Your task to perform on an android device: Go to Yahoo.com Image 0: 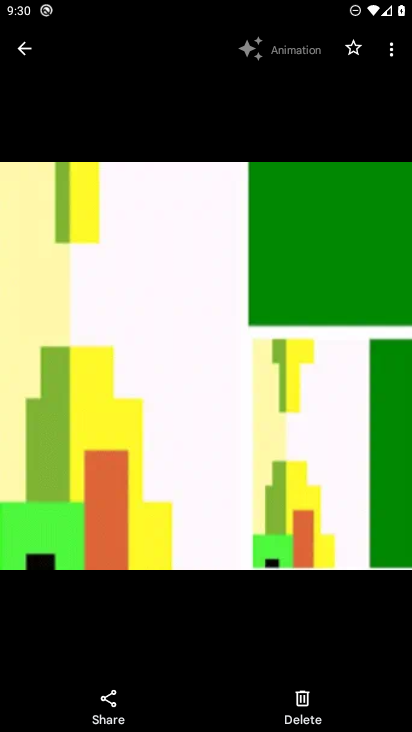
Step 0: press home button
Your task to perform on an android device: Go to Yahoo.com Image 1: 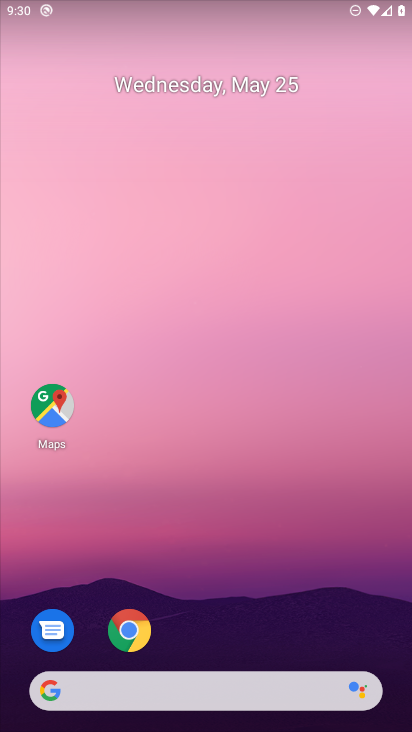
Step 1: click (126, 632)
Your task to perform on an android device: Go to Yahoo.com Image 2: 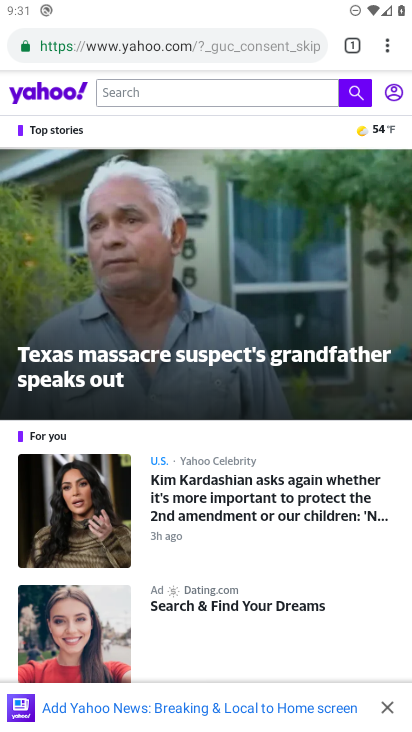
Step 2: task complete